Your task to perform on an android device: Open Yahoo.com Image 0: 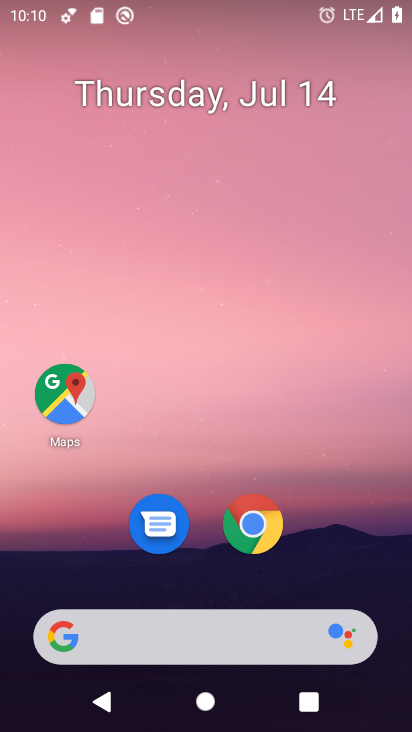
Step 0: click (213, 655)
Your task to perform on an android device: Open Yahoo.com Image 1: 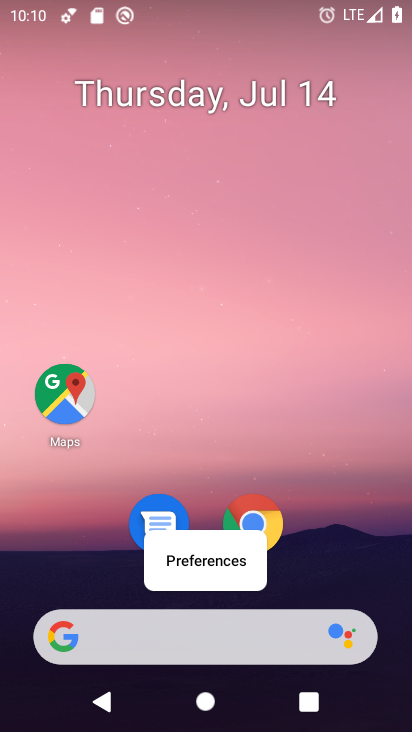
Step 1: click (273, 523)
Your task to perform on an android device: Open Yahoo.com Image 2: 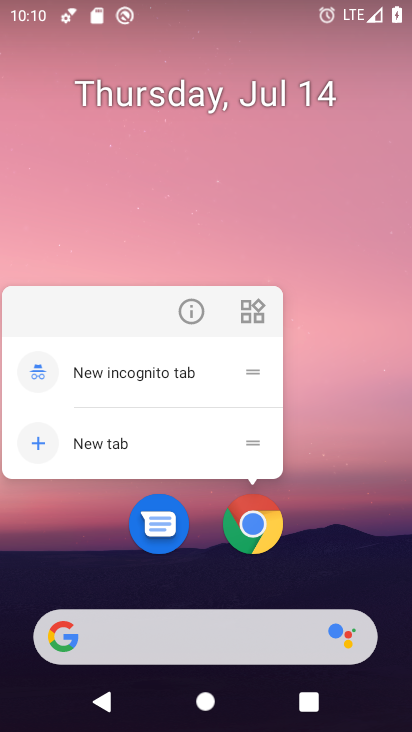
Step 2: click (273, 523)
Your task to perform on an android device: Open Yahoo.com Image 3: 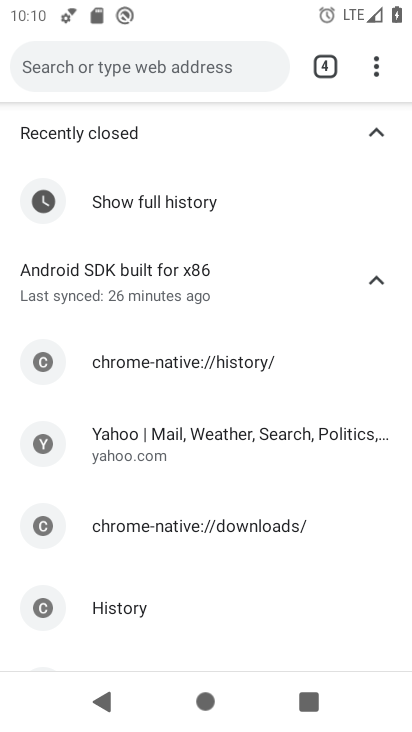
Step 3: click (374, 70)
Your task to perform on an android device: Open Yahoo.com Image 4: 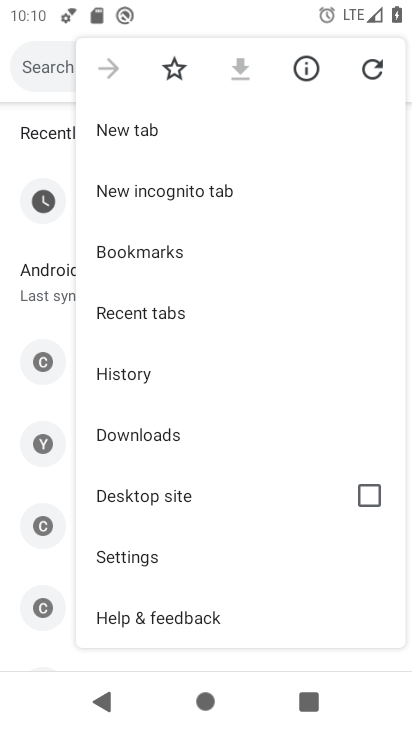
Step 4: click (303, 119)
Your task to perform on an android device: Open Yahoo.com Image 5: 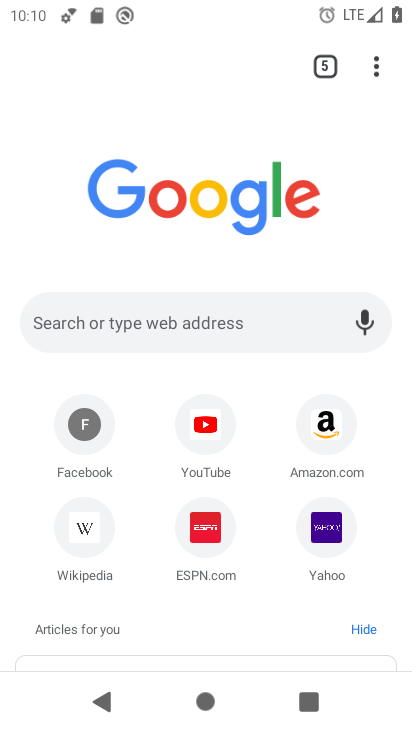
Step 5: click (334, 520)
Your task to perform on an android device: Open Yahoo.com Image 6: 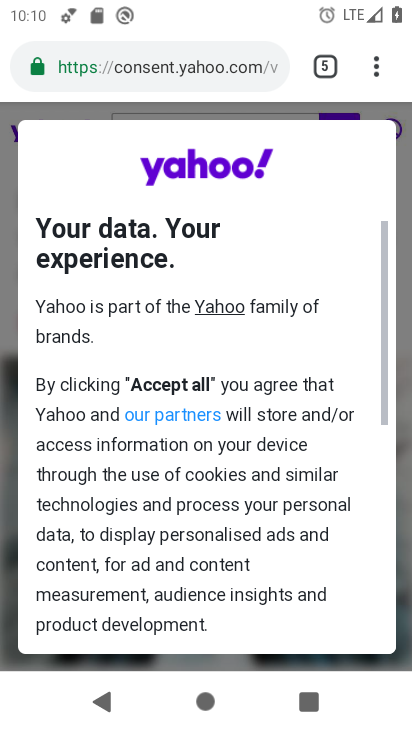
Step 6: drag from (218, 634) to (248, 181)
Your task to perform on an android device: Open Yahoo.com Image 7: 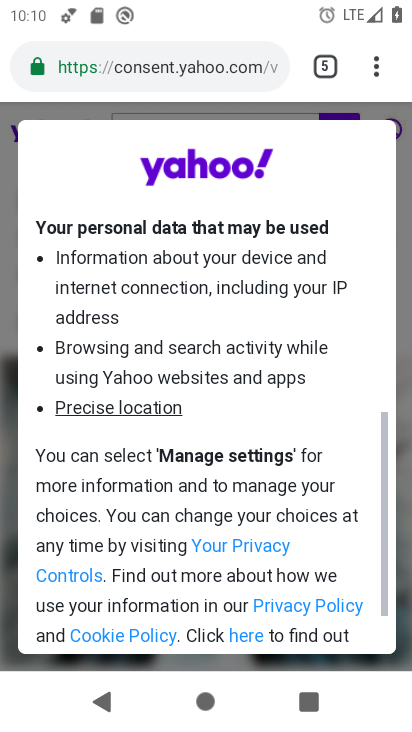
Step 7: drag from (219, 547) to (220, 229)
Your task to perform on an android device: Open Yahoo.com Image 8: 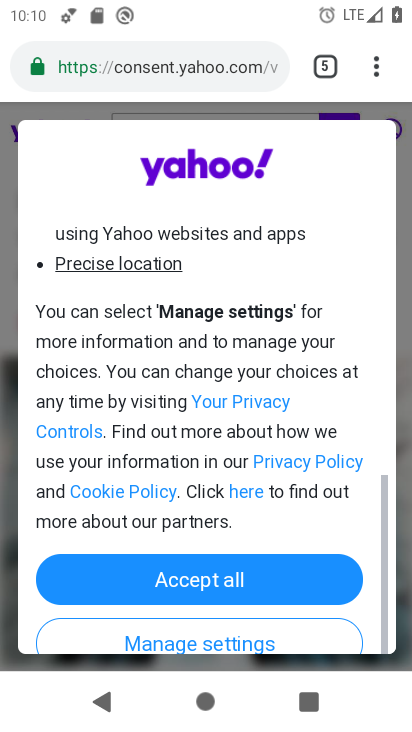
Step 8: click (261, 581)
Your task to perform on an android device: Open Yahoo.com Image 9: 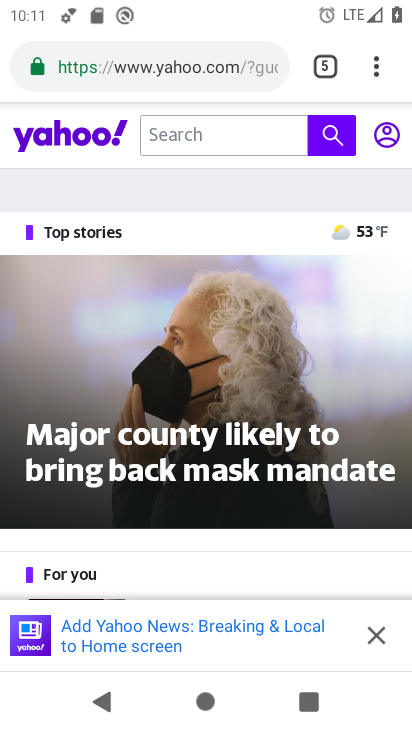
Step 9: task complete